Your task to perform on an android device: change your default location settings in chrome Image 0: 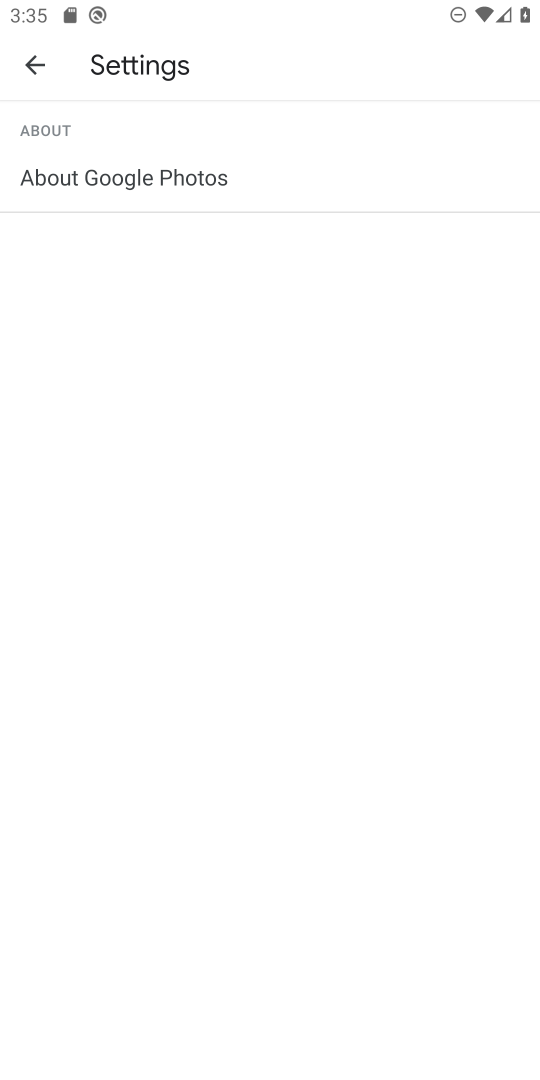
Step 0: press home button
Your task to perform on an android device: change your default location settings in chrome Image 1: 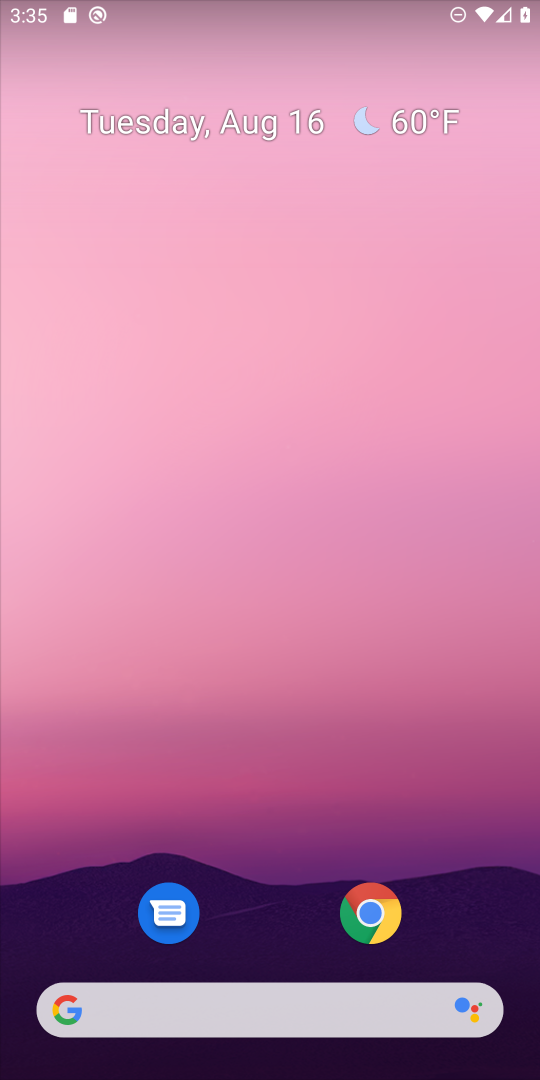
Step 1: click (370, 919)
Your task to perform on an android device: change your default location settings in chrome Image 2: 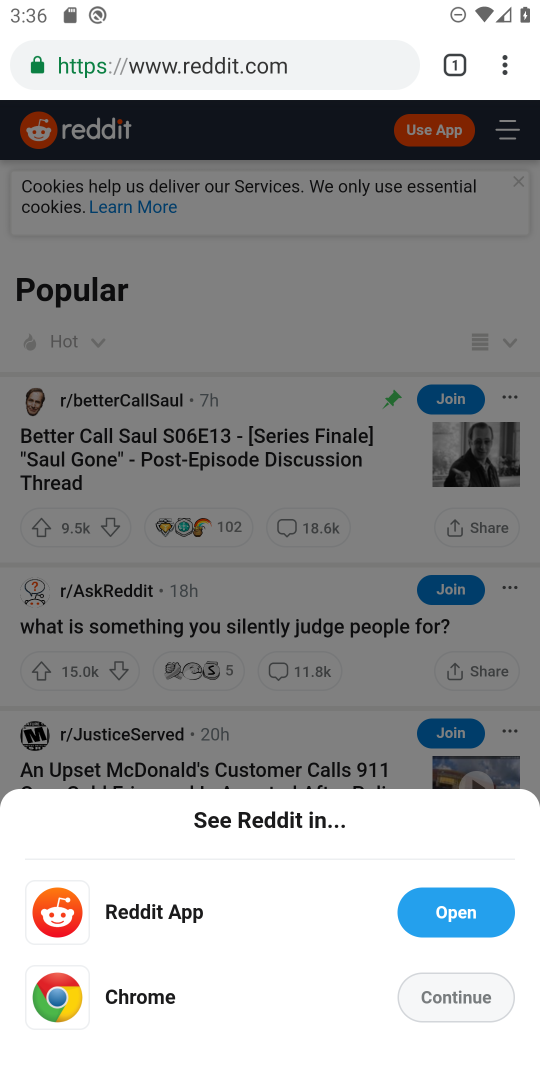
Step 2: click (499, 68)
Your task to perform on an android device: change your default location settings in chrome Image 3: 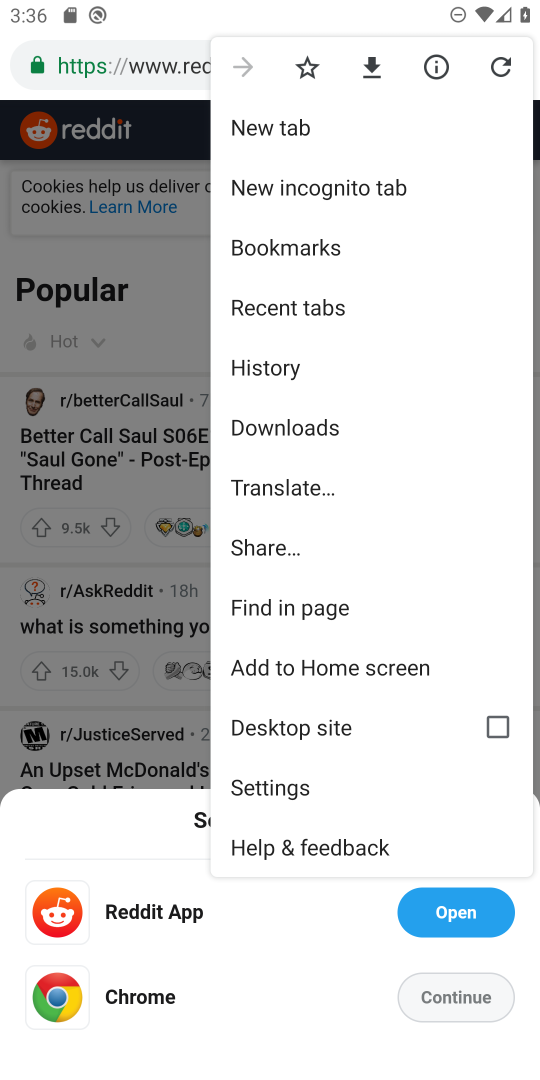
Step 3: click (292, 787)
Your task to perform on an android device: change your default location settings in chrome Image 4: 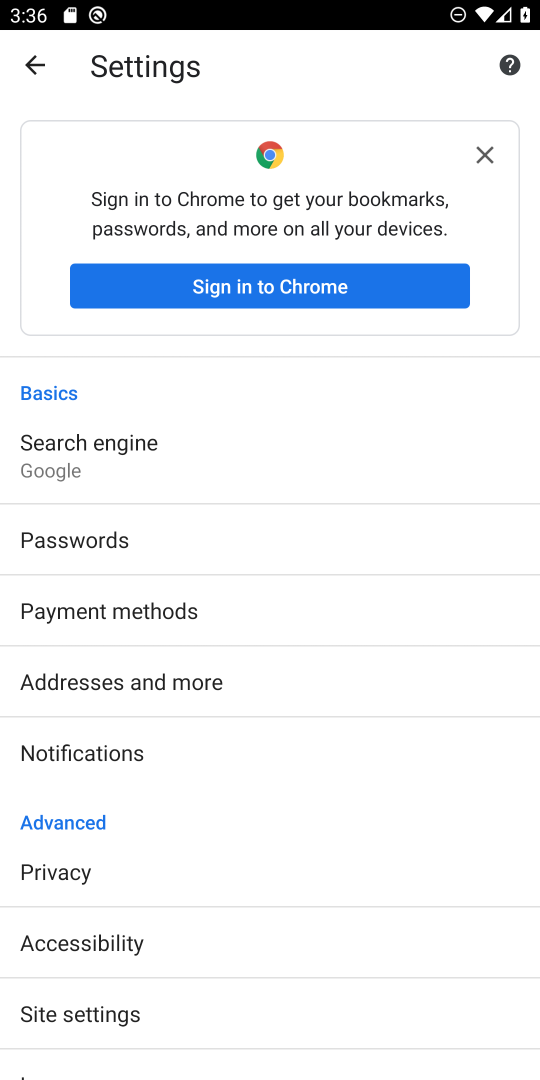
Step 4: drag from (297, 875) to (303, 484)
Your task to perform on an android device: change your default location settings in chrome Image 5: 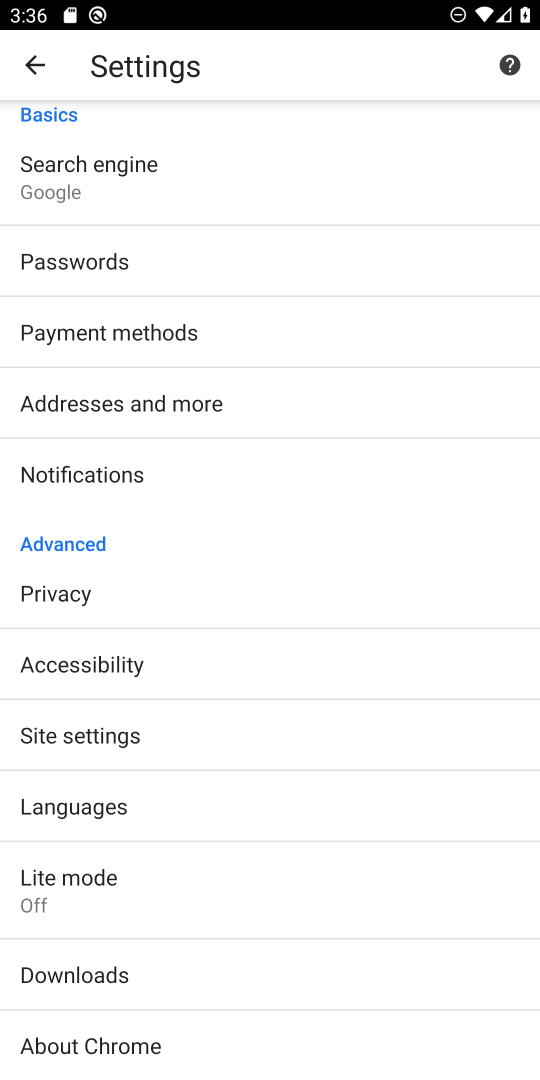
Step 5: click (70, 737)
Your task to perform on an android device: change your default location settings in chrome Image 6: 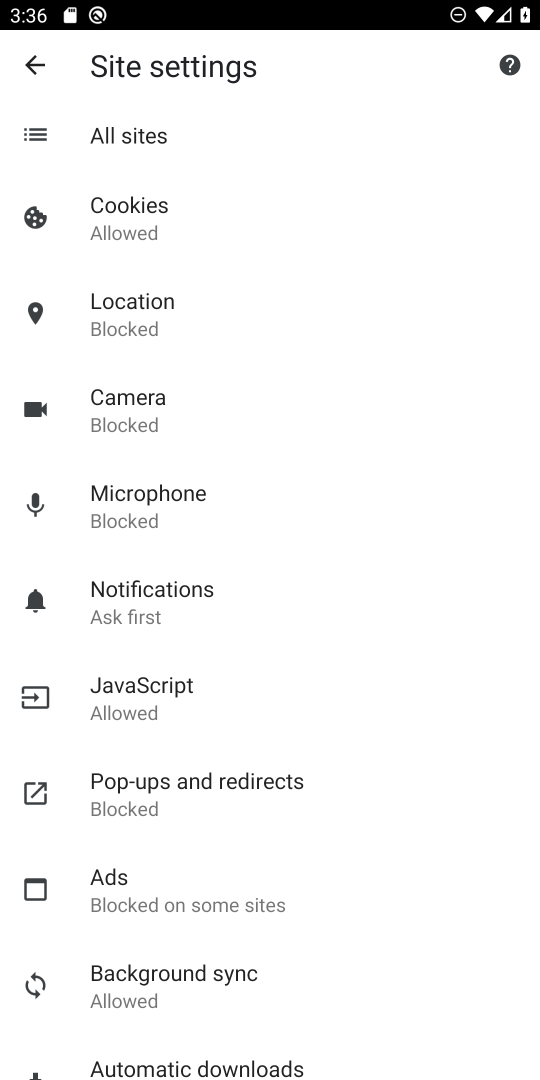
Step 6: click (144, 313)
Your task to perform on an android device: change your default location settings in chrome Image 7: 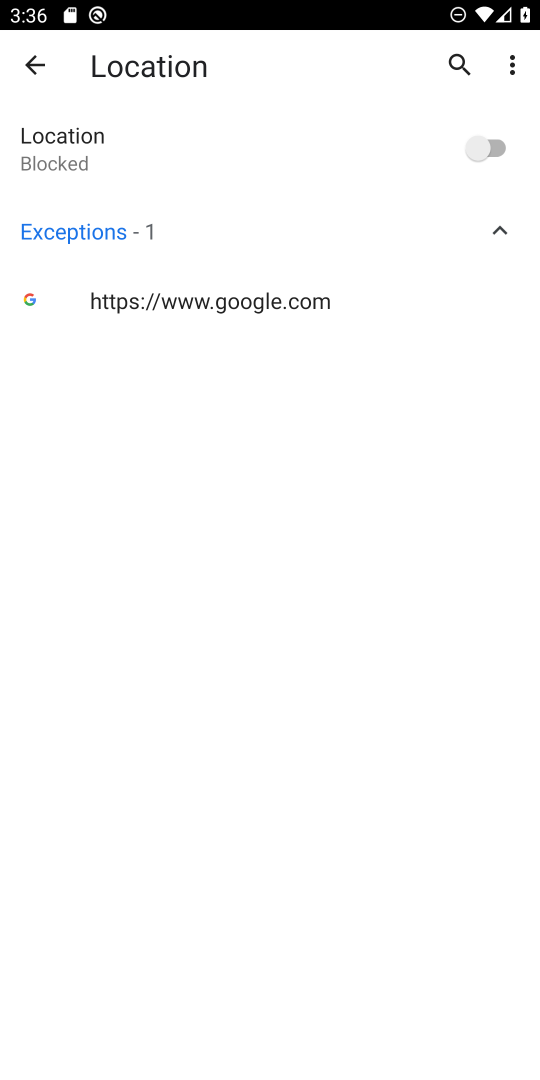
Step 7: click (505, 148)
Your task to perform on an android device: change your default location settings in chrome Image 8: 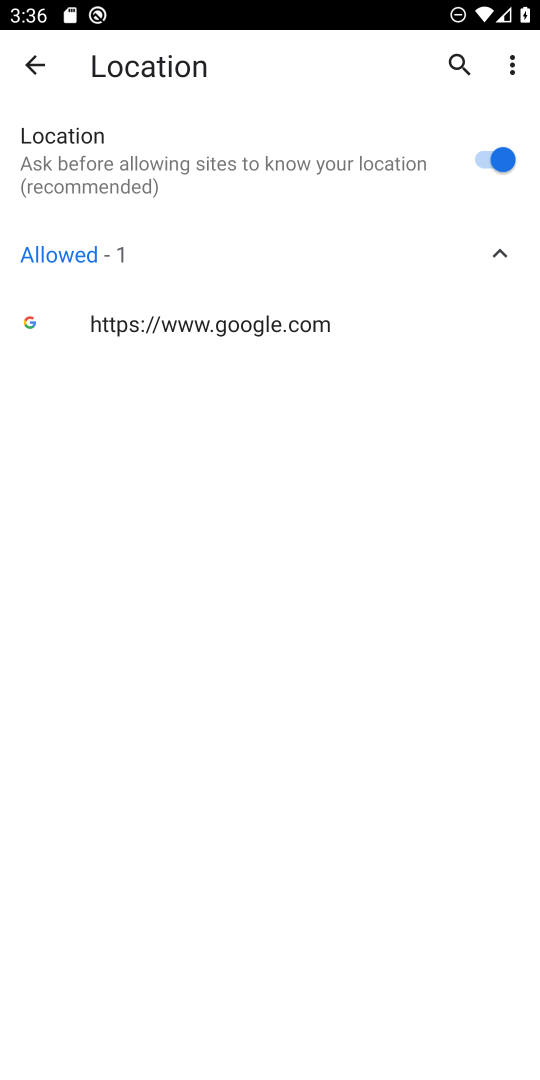
Step 8: task complete